Your task to perform on an android device: Open the web browser Image 0: 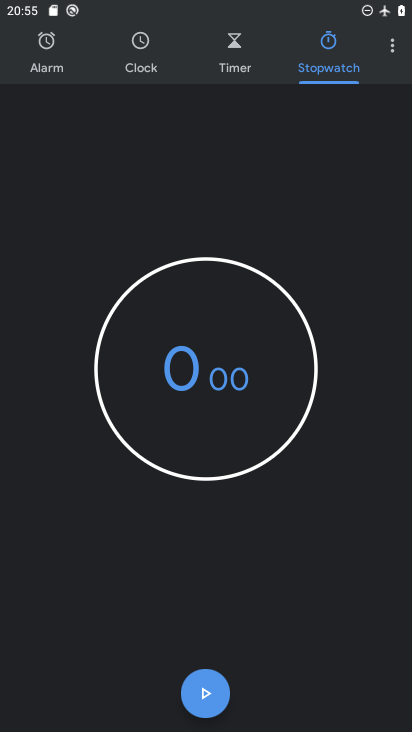
Step 0: press home button
Your task to perform on an android device: Open the web browser Image 1: 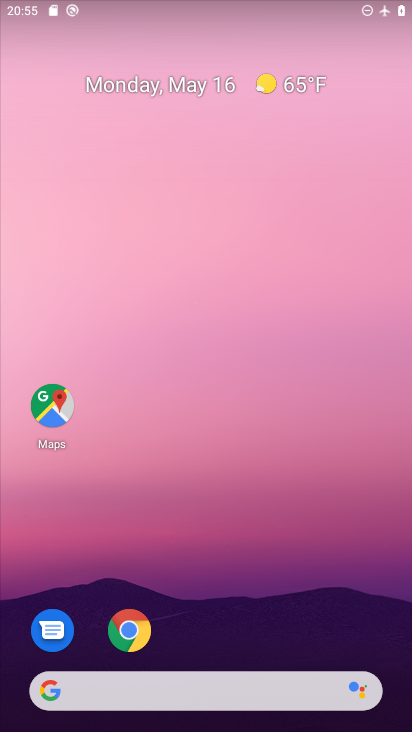
Step 1: drag from (218, 637) to (200, 280)
Your task to perform on an android device: Open the web browser Image 2: 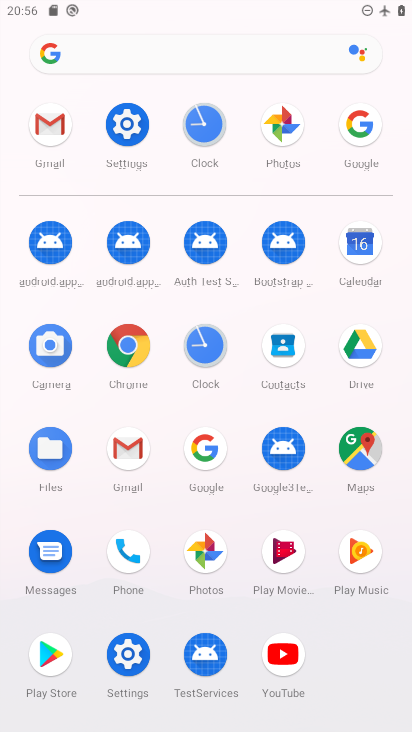
Step 2: click (139, 345)
Your task to perform on an android device: Open the web browser Image 3: 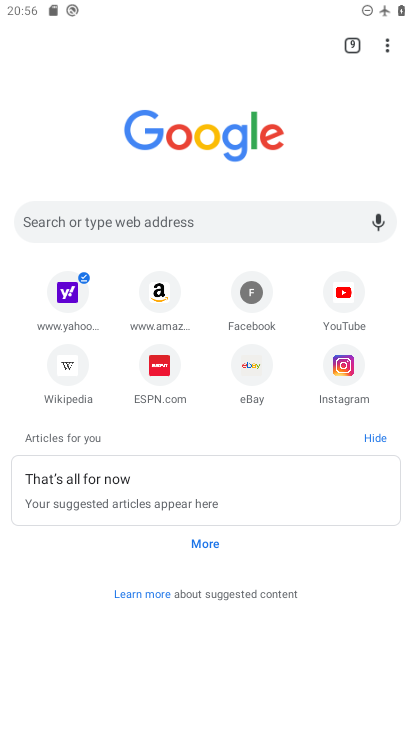
Step 3: task complete